Your task to perform on an android device: turn pop-ups on in chrome Image 0: 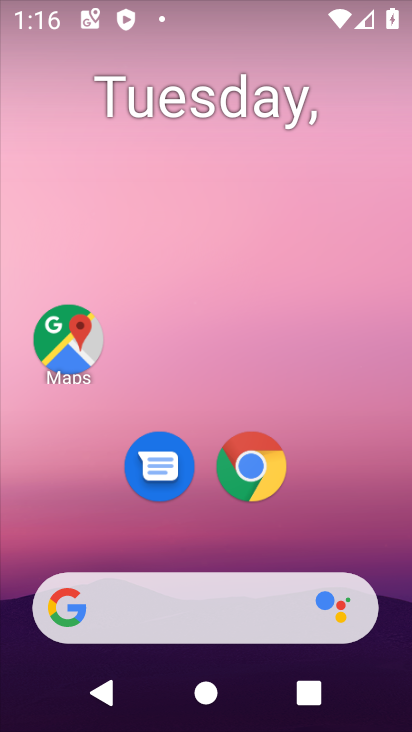
Step 0: click (239, 493)
Your task to perform on an android device: turn pop-ups on in chrome Image 1: 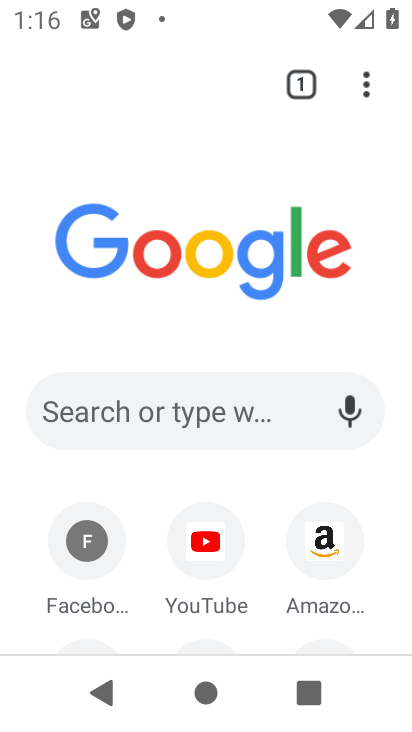
Step 1: drag from (362, 64) to (111, 536)
Your task to perform on an android device: turn pop-ups on in chrome Image 2: 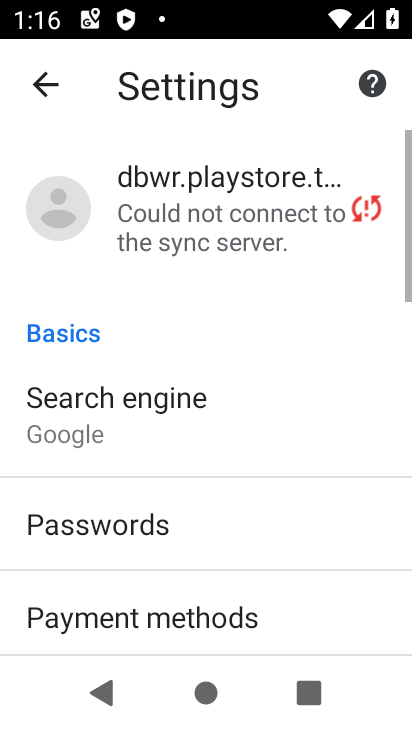
Step 2: drag from (111, 536) to (122, 149)
Your task to perform on an android device: turn pop-ups on in chrome Image 3: 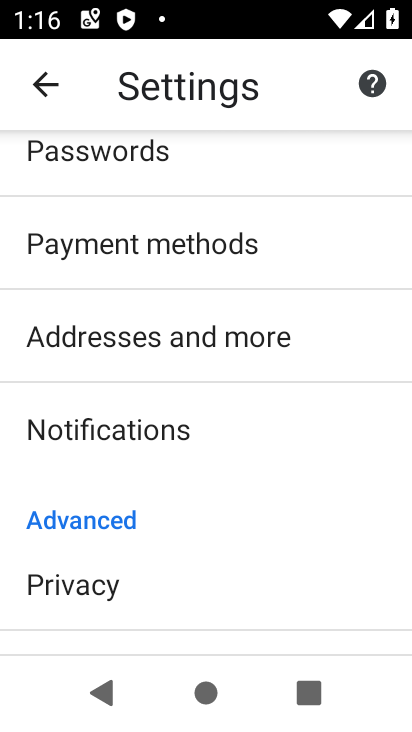
Step 3: drag from (169, 462) to (119, 201)
Your task to perform on an android device: turn pop-ups on in chrome Image 4: 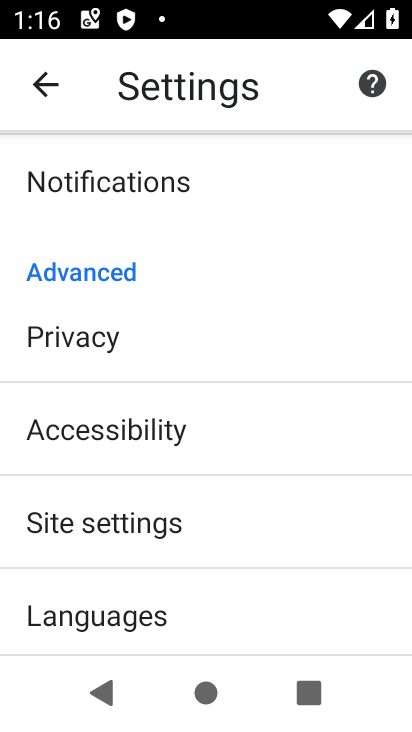
Step 4: drag from (196, 651) to (183, 356)
Your task to perform on an android device: turn pop-ups on in chrome Image 5: 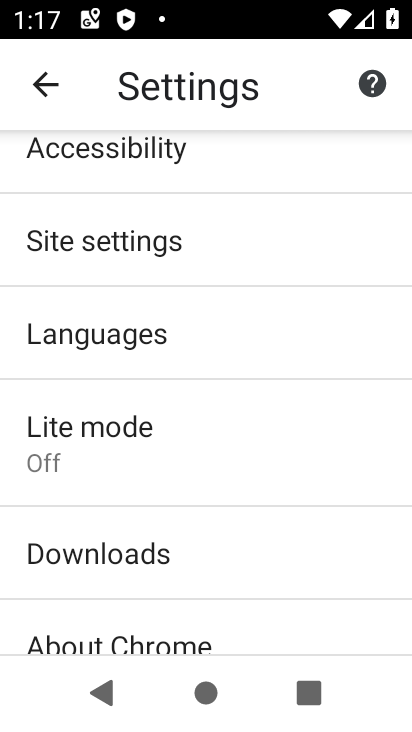
Step 5: click (175, 260)
Your task to perform on an android device: turn pop-ups on in chrome Image 6: 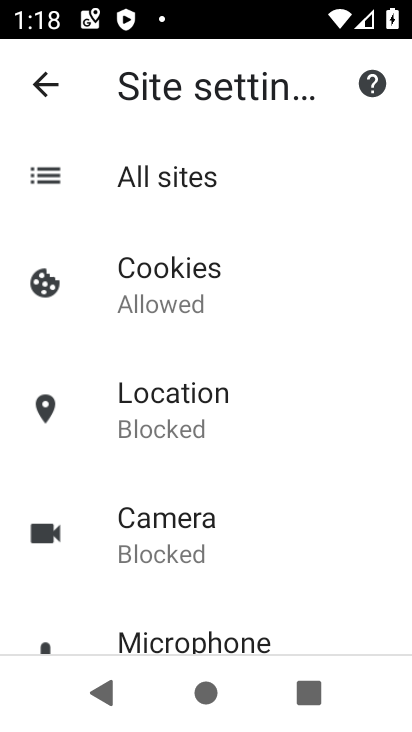
Step 6: drag from (269, 560) to (304, 178)
Your task to perform on an android device: turn pop-ups on in chrome Image 7: 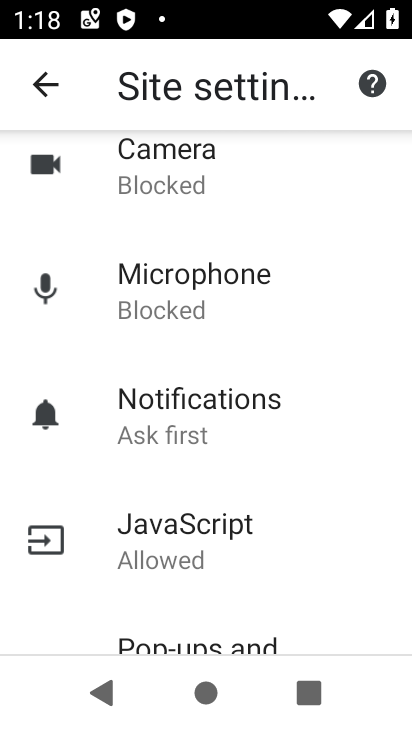
Step 7: drag from (270, 597) to (272, 246)
Your task to perform on an android device: turn pop-ups on in chrome Image 8: 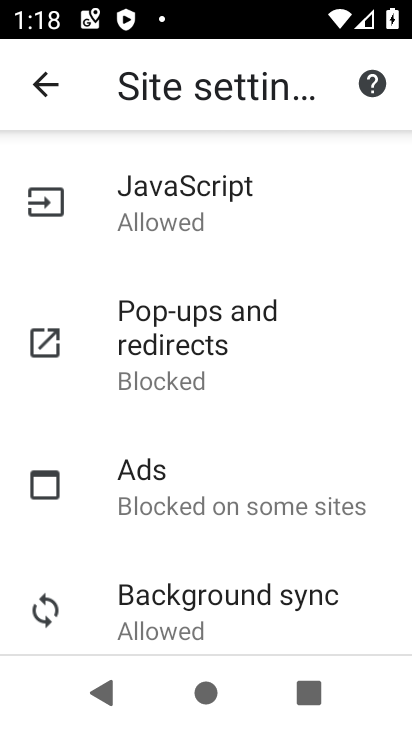
Step 8: drag from (236, 573) to (266, 209)
Your task to perform on an android device: turn pop-ups on in chrome Image 9: 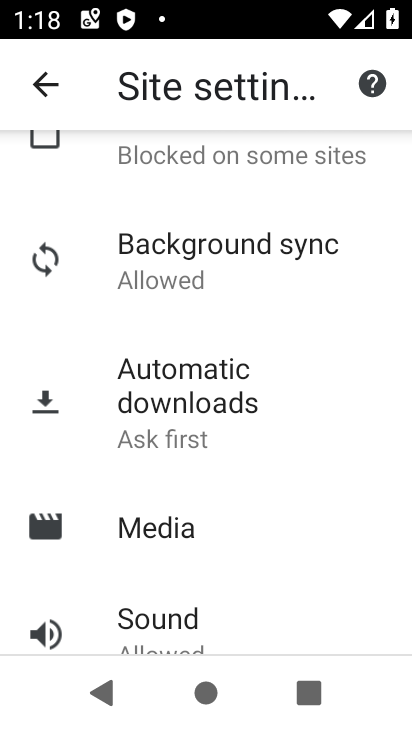
Step 9: drag from (265, 613) to (271, 321)
Your task to perform on an android device: turn pop-ups on in chrome Image 10: 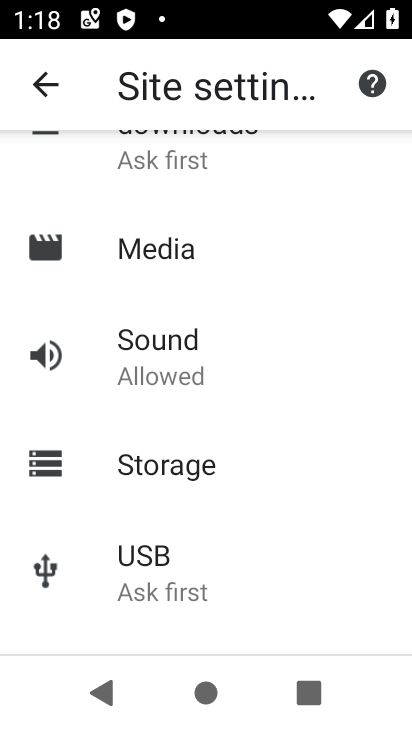
Step 10: drag from (218, 202) to (257, 387)
Your task to perform on an android device: turn pop-ups on in chrome Image 11: 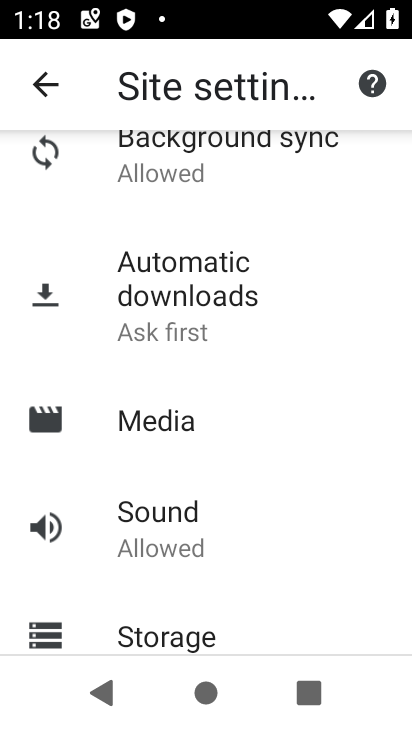
Step 11: drag from (200, 236) to (262, 619)
Your task to perform on an android device: turn pop-ups on in chrome Image 12: 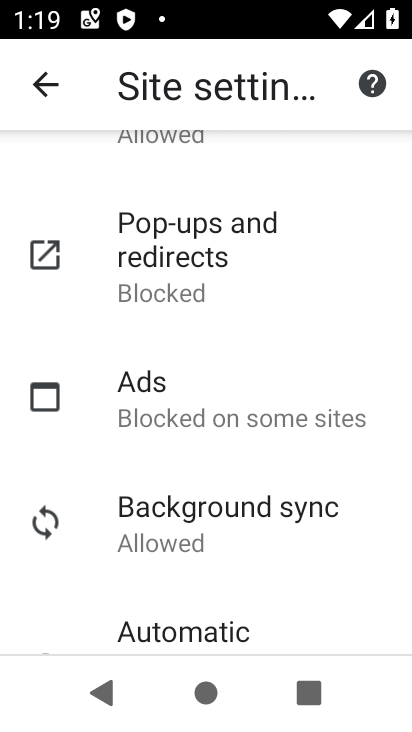
Step 12: drag from (215, 253) to (261, 565)
Your task to perform on an android device: turn pop-ups on in chrome Image 13: 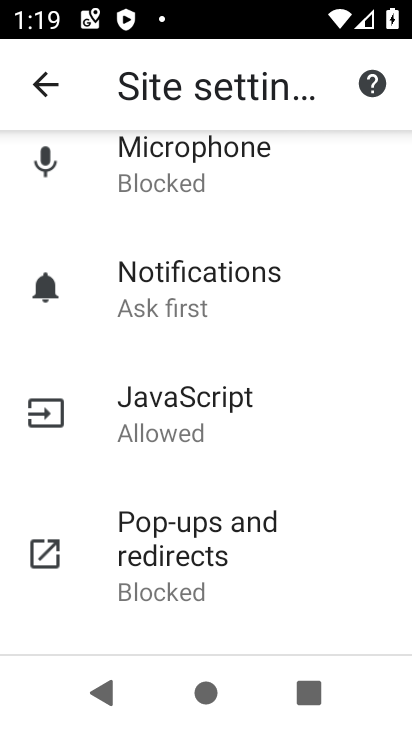
Step 13: click (190, 542)
Your task to perform on an android device: turn pop-ups on in chrome Image 14: 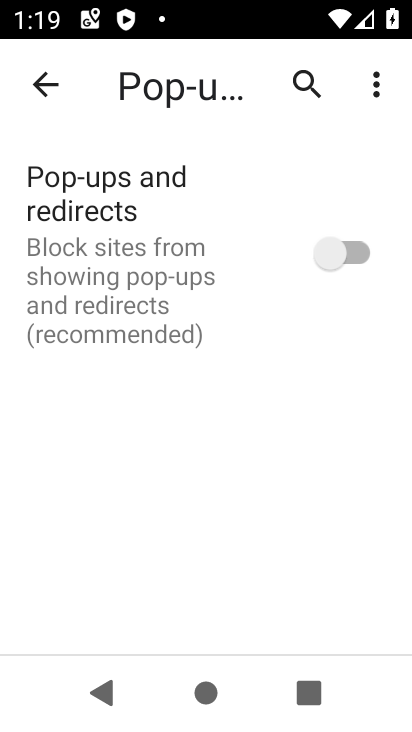
Step 14: click (190, 324)
Your task to perform on an android device: turn pop-ups on in chrome Image 15: 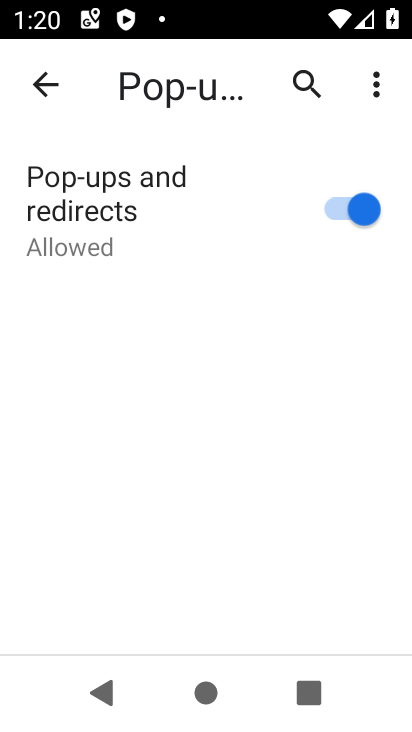
Step 15: task complete